Your task to perform on an android device: toggle wifi Image 0: 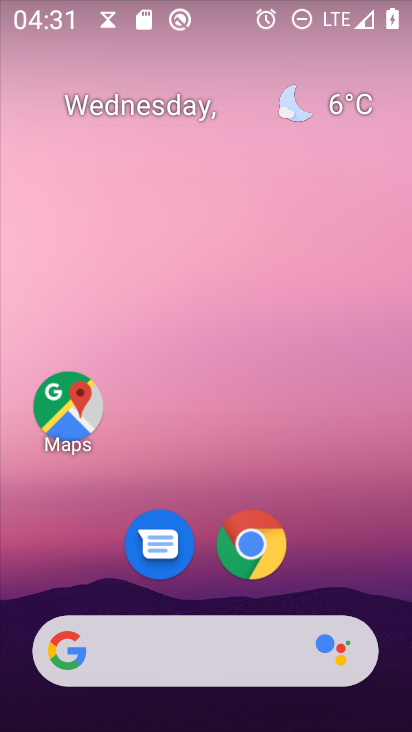
Step 0: drag from (343, 577) to (292, 15)
Your task to perform on an android device: toggle wifi Image 1: 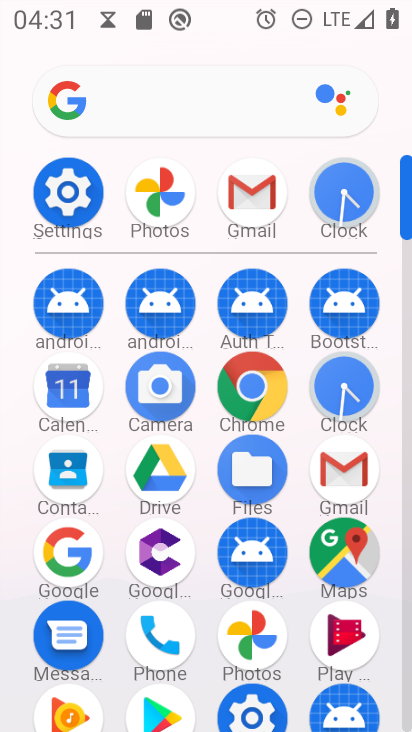
Step 1: click (56, 194)
Your task to perform on an android device: toggle wifi Image 2: 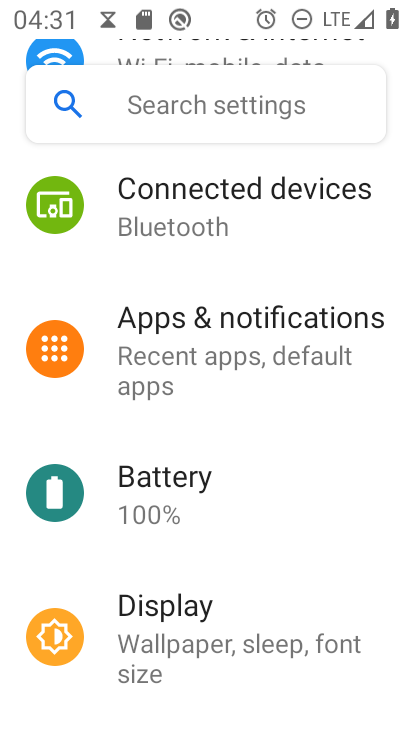
Step 2: drag from (184, 330) to (142, 655)
Your task to perform on an android device: toggle wifi Image 3: 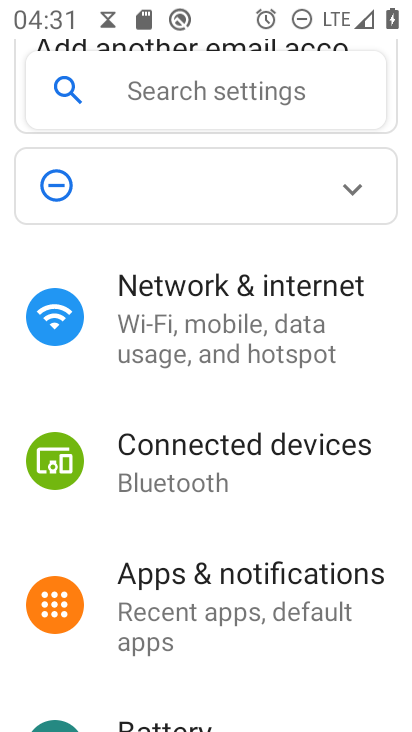
Step 3: click (230, 343)
Your task to perform on an android device: toggle wifi Image 4: 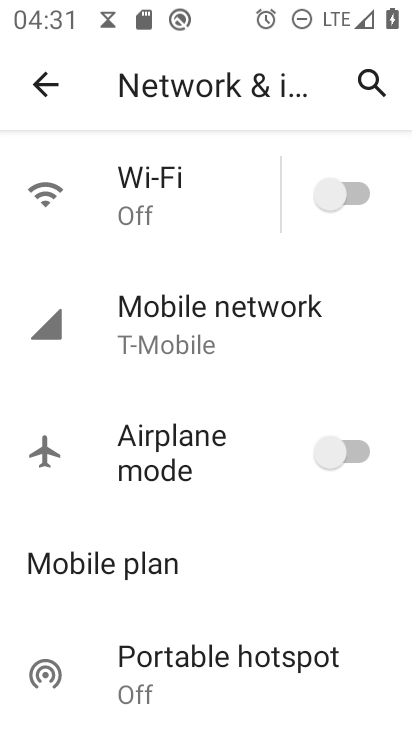
Step 4: click (357, 195)
Your task to perform on an android device: toggle wifi Image 5: 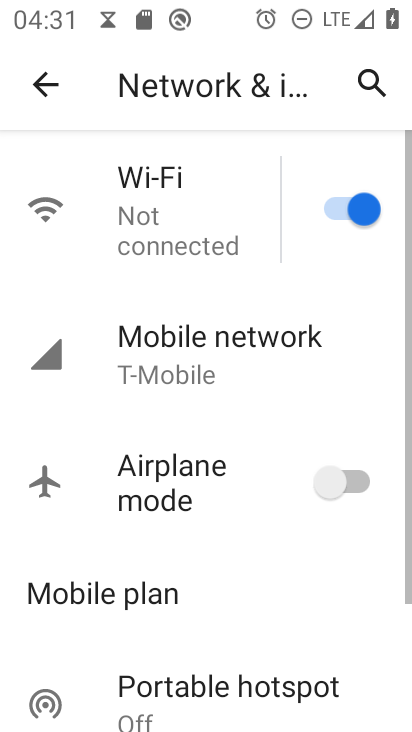
Step 5: task complete